Your task to perform on an android device: Open network settings Image 0: 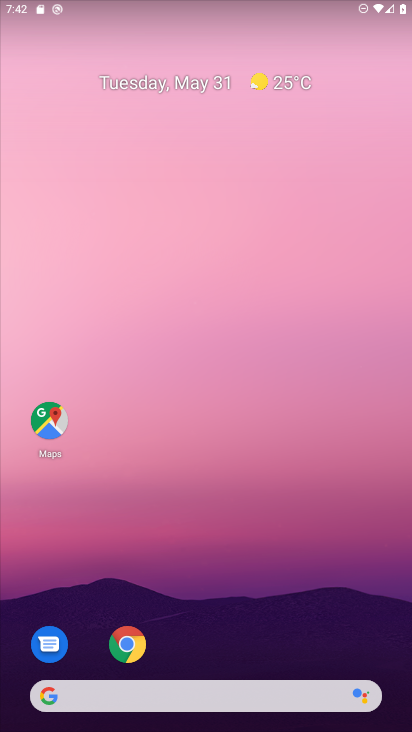
Step 0: drag from (243, 715) to (314, 304)
Your task to perform on an android device: Open network settings Image 1: 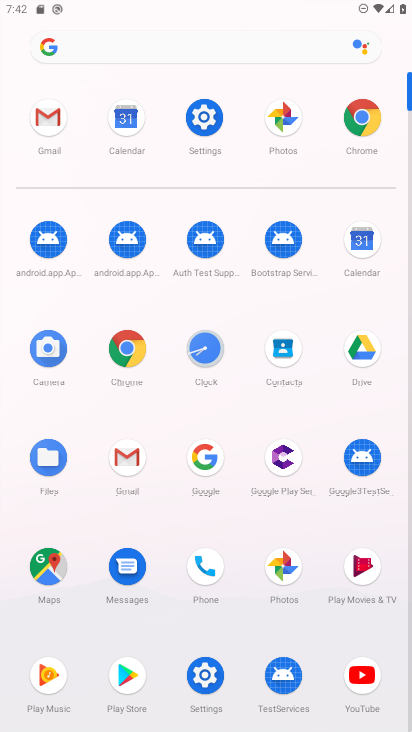
Step 1: click (203, 129)
Your task to perform on an android device: Open network settings Image 2: 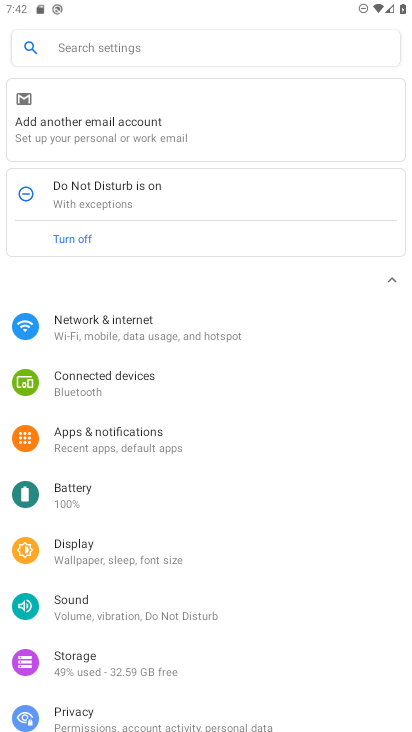
Step 2: click (160, 318)
Your task to perform on an android device: Open network settings Image 3: 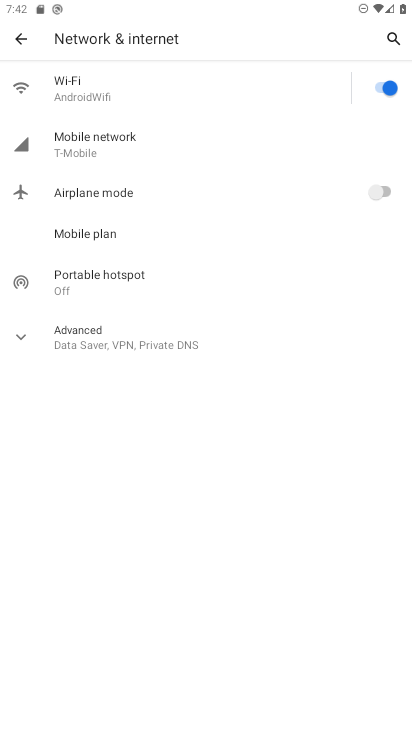
Step 3: task complete